Your task to perform on an android device: turn on airplane mode Image 0: 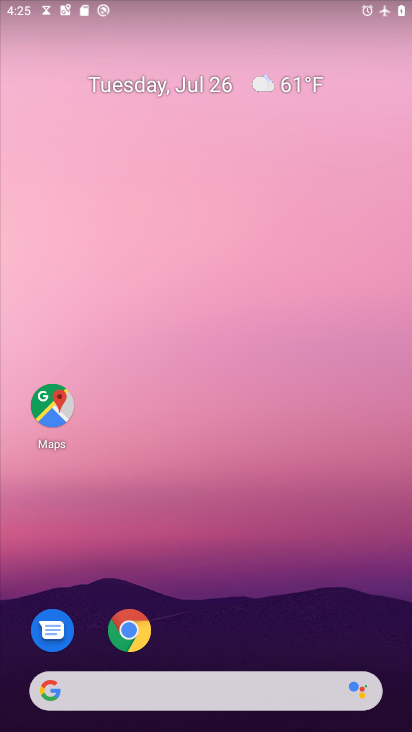
Step 0: drag from (299, 640) to (226, 146)
Your task to perform on an android device: turn on airplane mode Image 1: 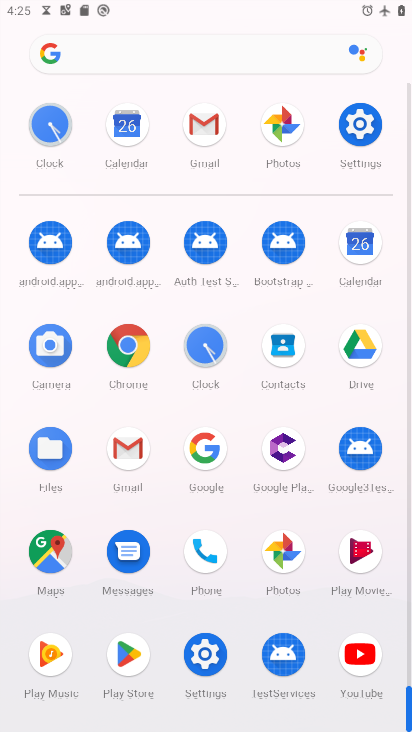
Step 1: click (357, 120)
Your task to perform on an android device: turn on airplane mode Image 2: 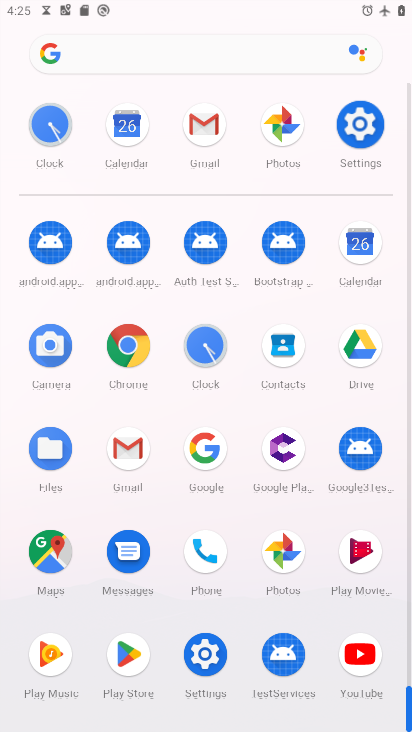
Step 2: click (363, 123)
Your task to perform on an android device: turn on airplane mode Image 3: 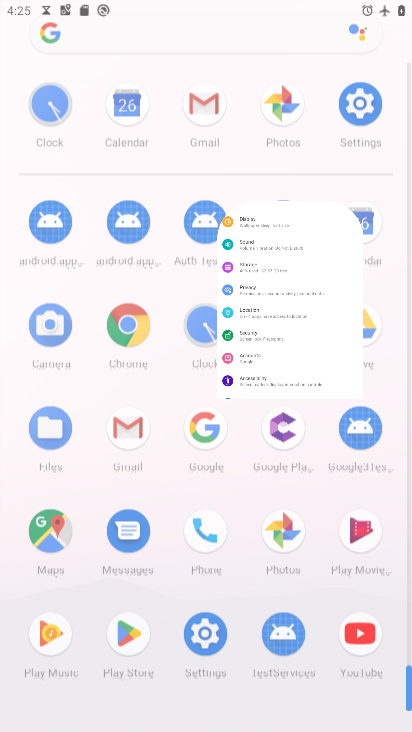
Step 3: click (372, 130)
Your task to perform on an android device: turn on airplane mode Image 4: 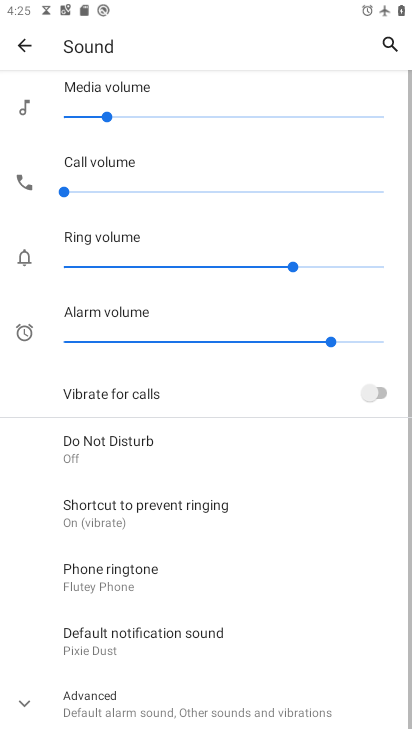
Step 4: click (21, 42)
Your task to perform on an android device: turn on airplane mode Image 5: 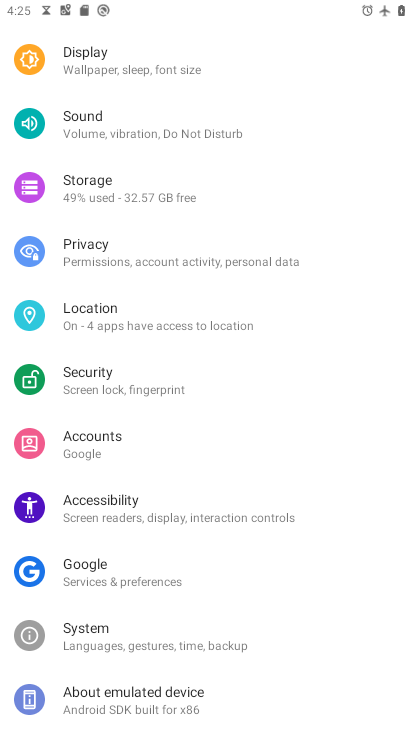
Step 5: drag from (149, 138) to (167, 528)
Your task to perform on an android device: turn on airplane mode Image 6: 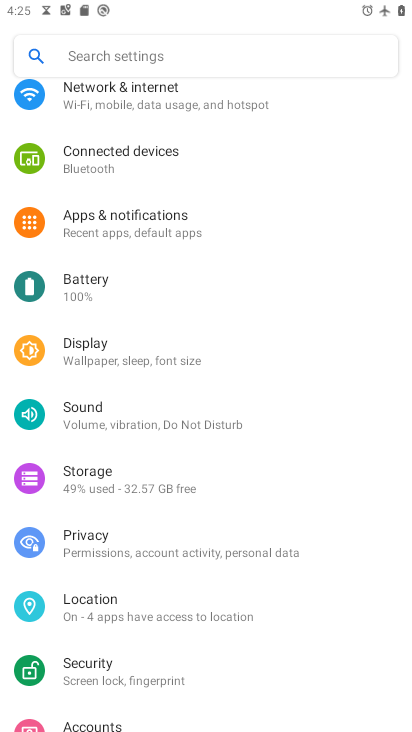
Step 6: drag from (185, 185) to (171, 466)
Your task to perform on an android device: turn on airplane mode Image 7: 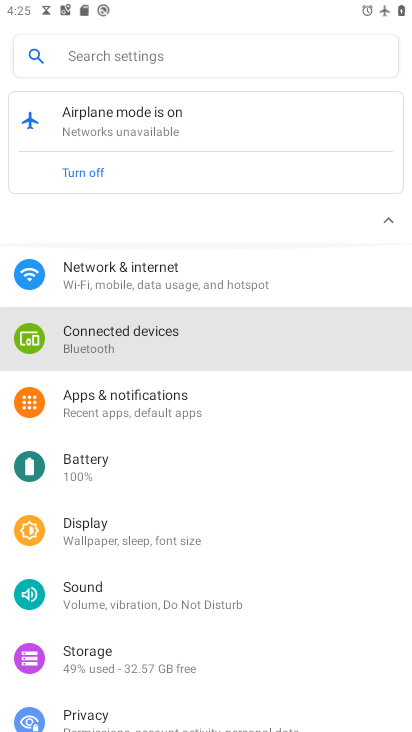
Step 7: drag from (144, 195) to (134, 549)
Your task to perform on an android device: turn on airplane mode Image 8: 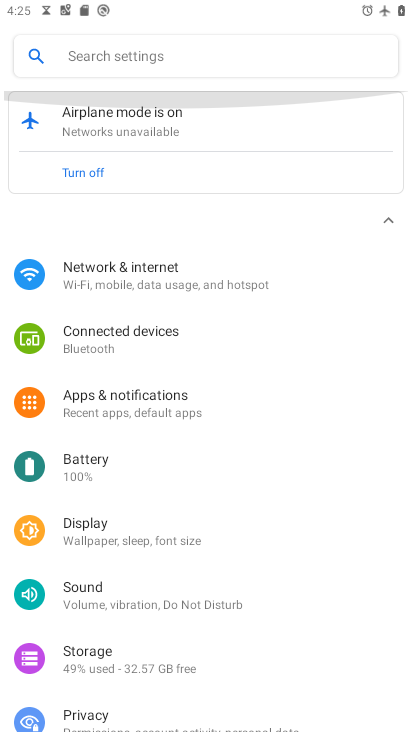
Step 8: drag from (133, 279) to (125, 586)
Your task to perform on an android device: turn on airplane mode Image 9: 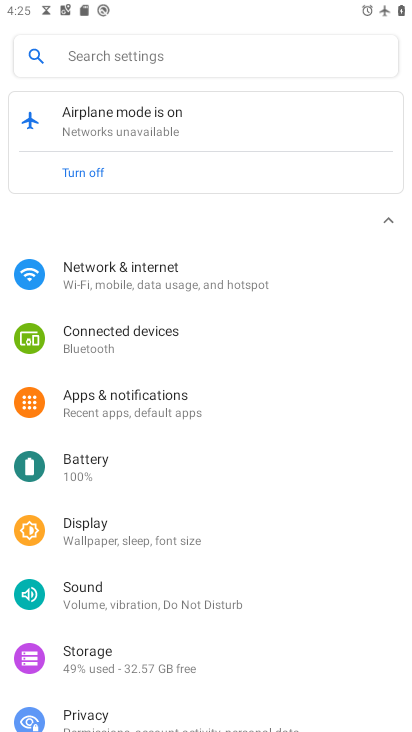
Step 9: click (155, 287)
Your task to perform on an android device: turn on airplane mode Image 10: 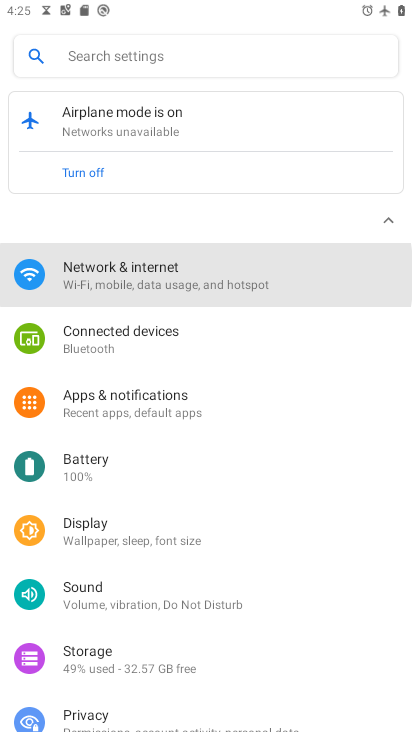
Step 10: click (155, 287)
Your task to perform on an android device: turn on airplane mode Image 11: 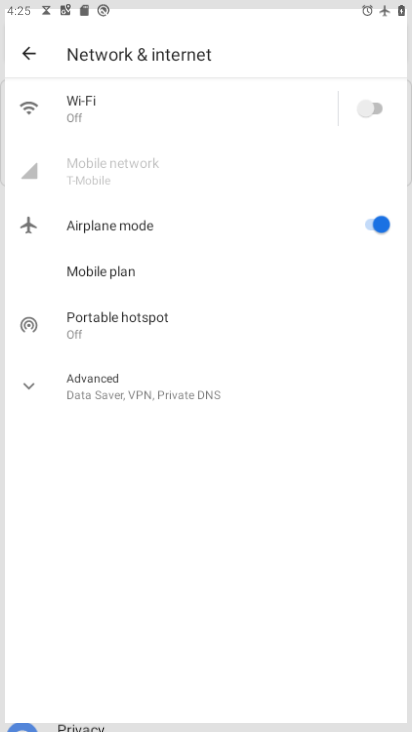
Step 11: click (155, 287)
Your task to perform on an android device: turn on airplane mode Image 12: 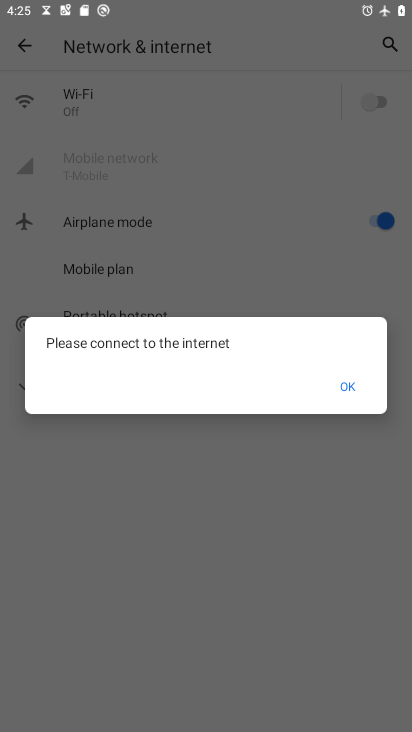
Step 12: click (348, 390)
Your task to perform on an android device: turn on airplane mode Image 13: 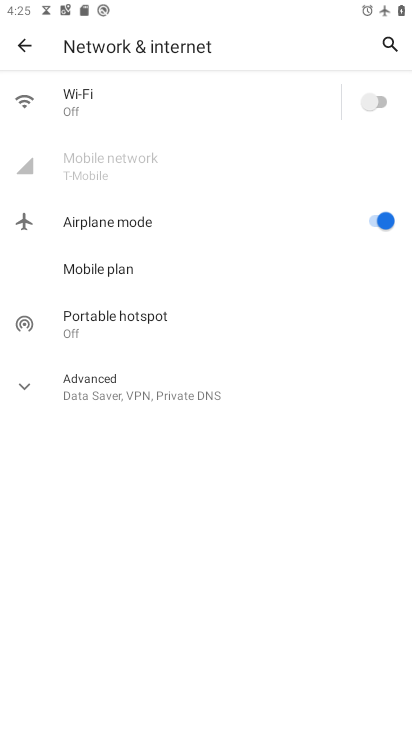
Step 13: task complete